Your task to perform on an android device: toggle sleep mode Image 0: 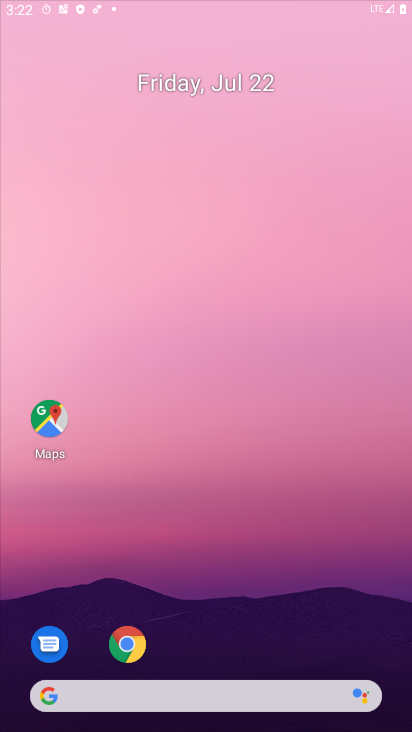
Step 0: press home button
Your task to perform on an android device: toggle sleep mode Image 1: 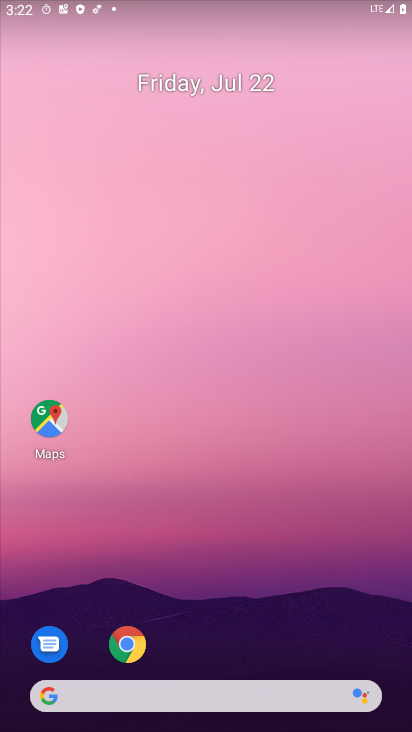
Step 1: drag from (244, 620) to (211, 89)
Your task to perform on an android device: toggle sleep mode Image 2: 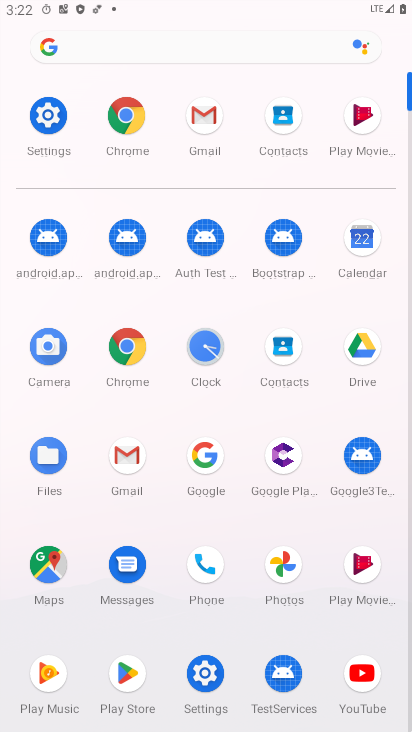
Step 2: click (42, 116)
Your task to perform on an android device: toggle sleep mode Image 3: 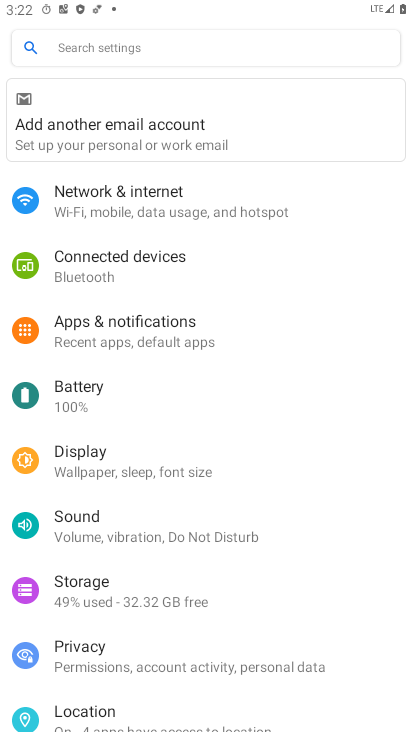
Step 3: click (83, 466)
Your task to perform on an android device: toggle sleep mode Image 4: 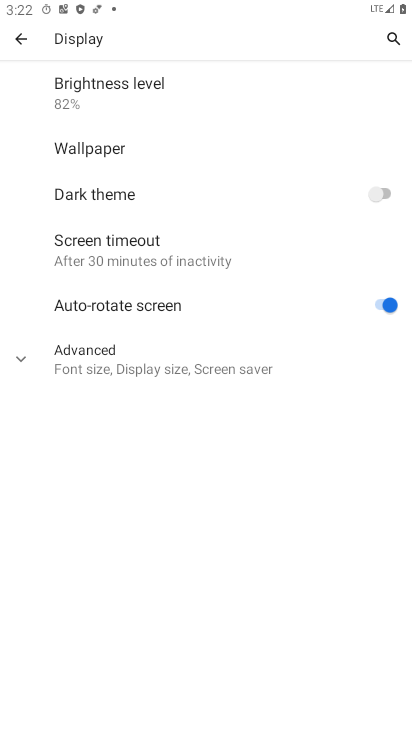
Step 4: task complete